Your task to perform on an android device: move a message to another label in the gmail app Image 0: 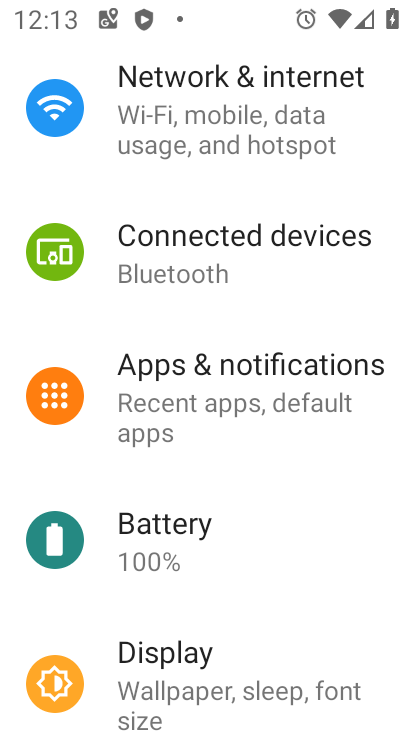
Step 0: press home button
Your task to perform on an android device: move a message to another label in the gmail app Image 1: 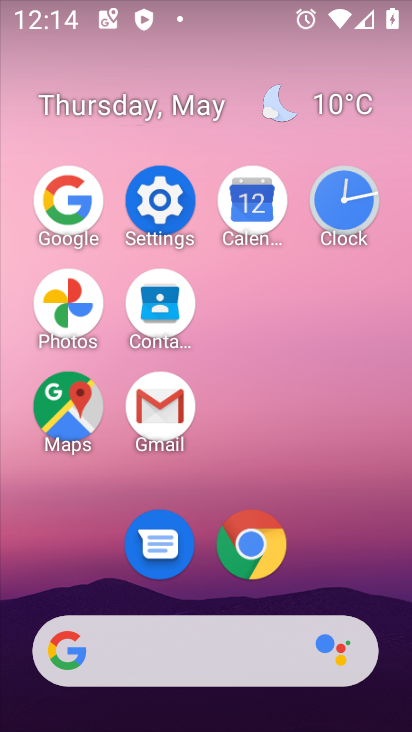
Step 1: click (174, 392)
Your task to perform on an android device: move a message to another label in the gmail app Image 2: 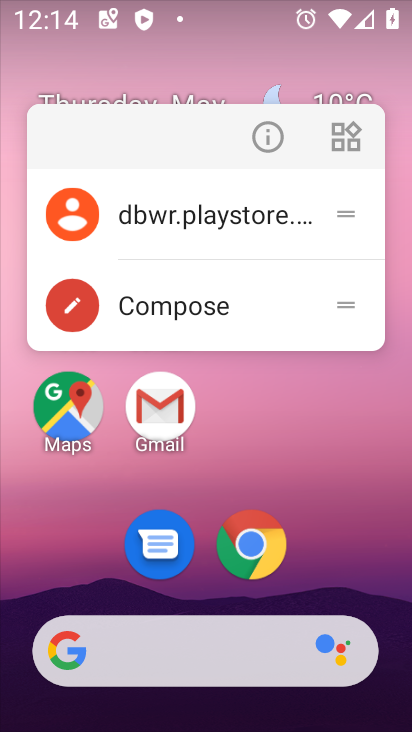
Step 2: click (173, 398)
Your task to perform on an android device: move a message to another label in the gmail app Image 3: 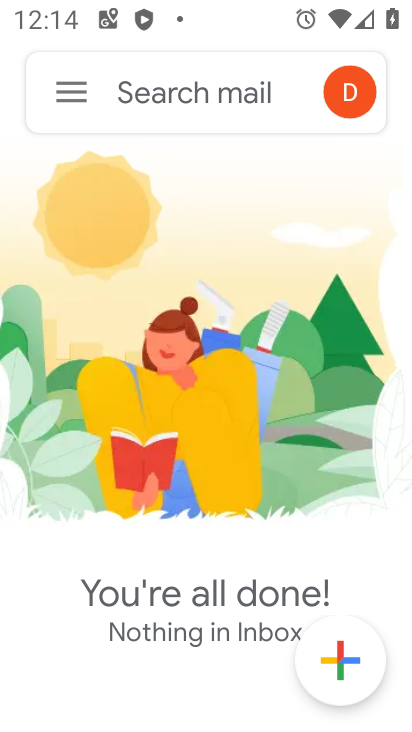
Step 3: click (69, 111)
Your task to perform on an android device: move a message to another label in the gmail app Image 4: 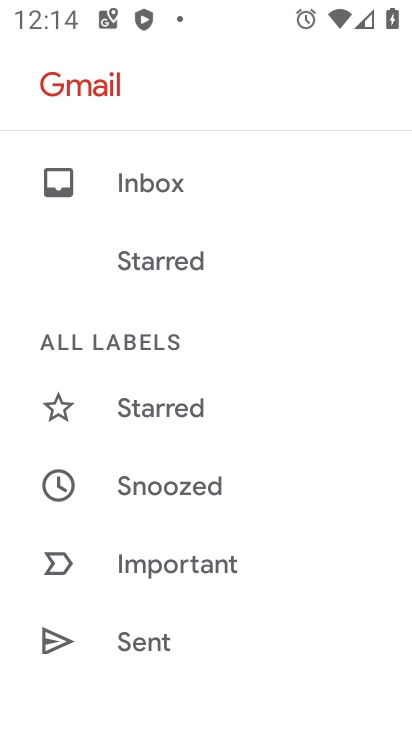
Step 4: drag from (181, 588) to (178, 159)
Your task to perform on an android device: move a message to another label in the gmail app Image 5: 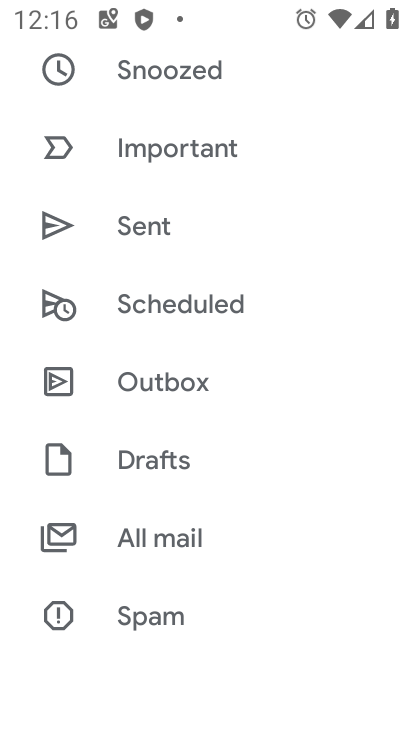
Step 5: click (196, 539)
Your task to perform on an android device: move a message to another label in the gmail app Image 6: 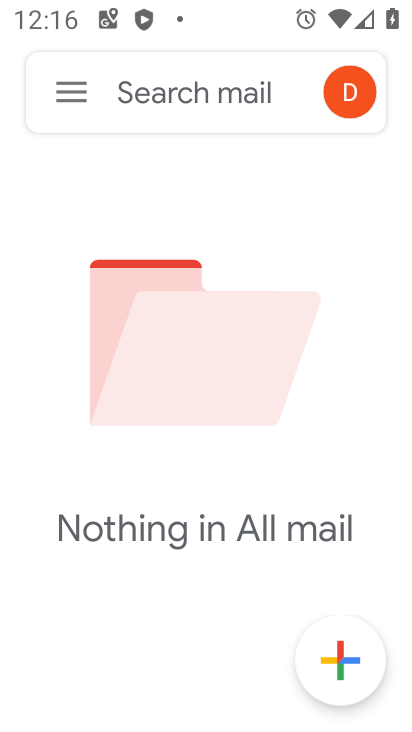
Step 6: task complete